Your task to perform on an android device: open sync settings in chrome Image 0: 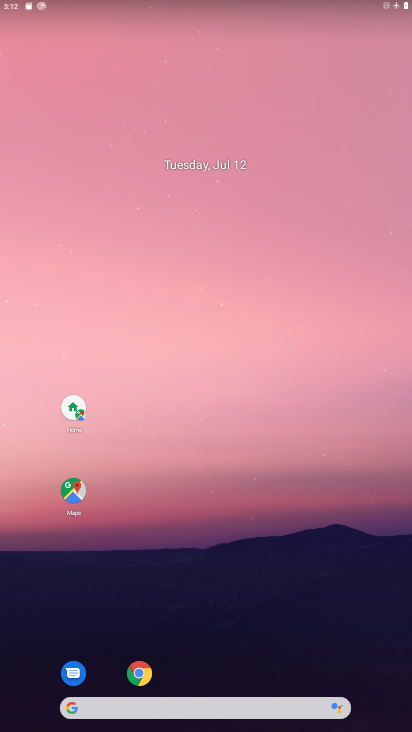
Step 0: drag from (237, 669) to (254, 97)
Your task to perform on an android device: open sync settings in chrome Image 1: 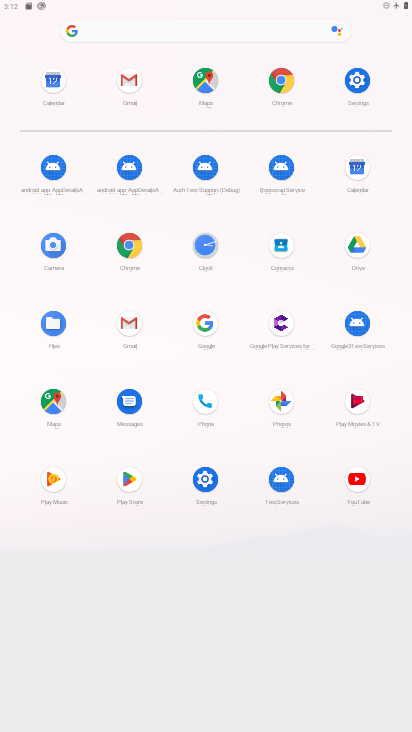
Step 1: click (275, 80)
Your task to perform on an android device: open sync settings in chrome Image 2: 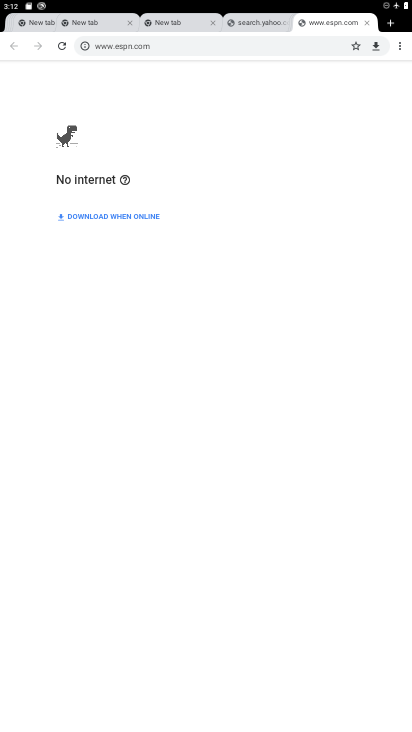
Step 2: click (407, 40)
Your task to perform on an android device: open sync settings in chrome Image 3: 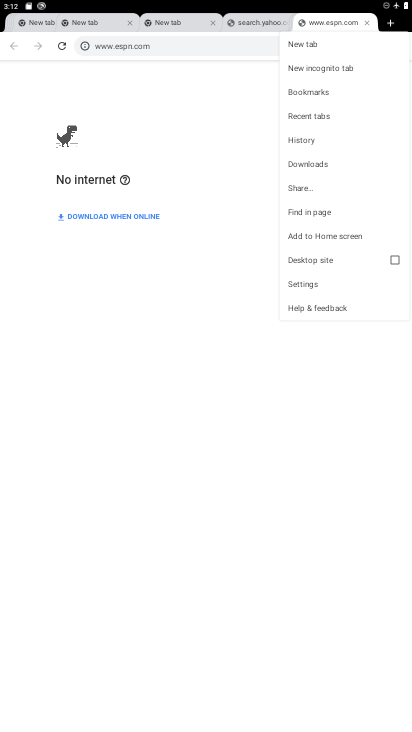
Step 3: click (306, 285)
Your task to perform on an android device: open sync settings in chrome Image 4: 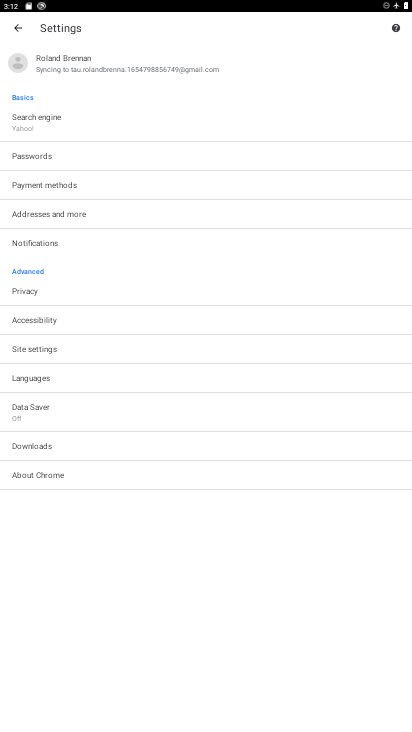
Step 4: click (46, 68)
Your task to perform on an android device: open sync settings in chrome Image 5: 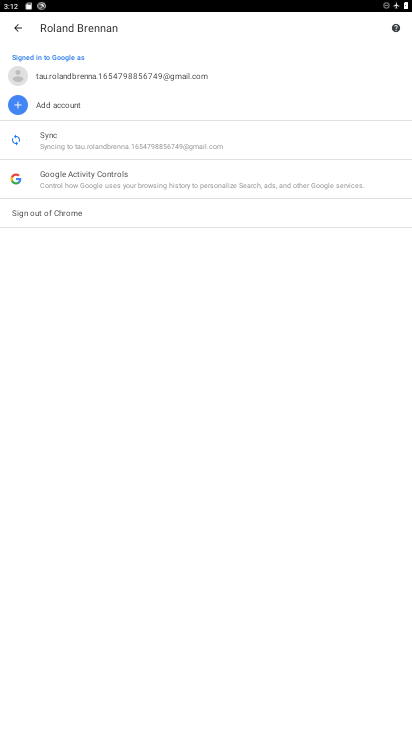
Step 5: click (89, 140)
Your task to perform on an android device: open sync settings in chrome Image 6: 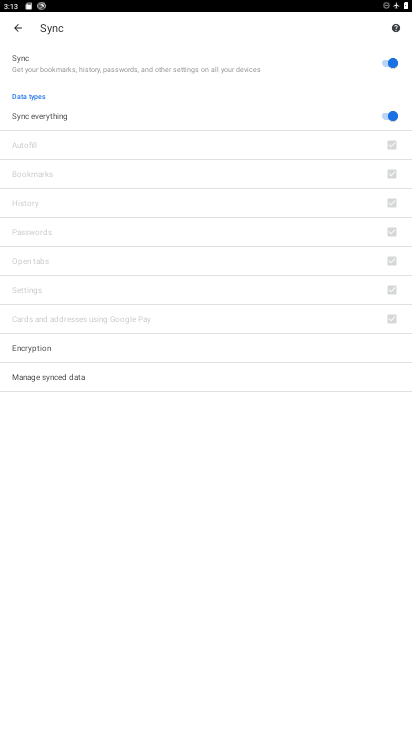
Step 6: task complete